Your task to perform on an android device: Open Google Chrome Image 0: 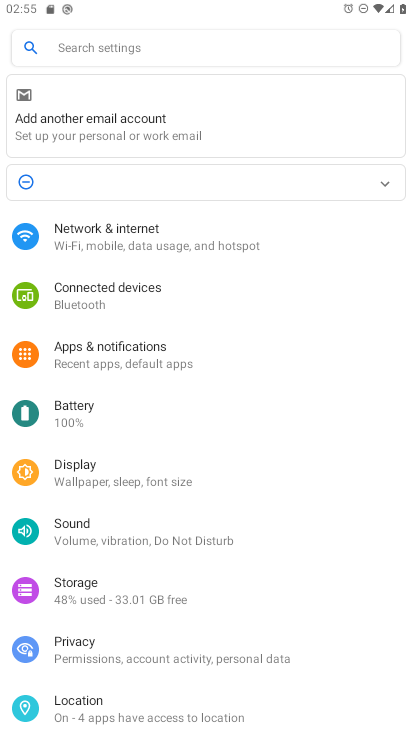
Step 0: press home button
Your task to perform on an android device: Open Google Chrome Image 1: 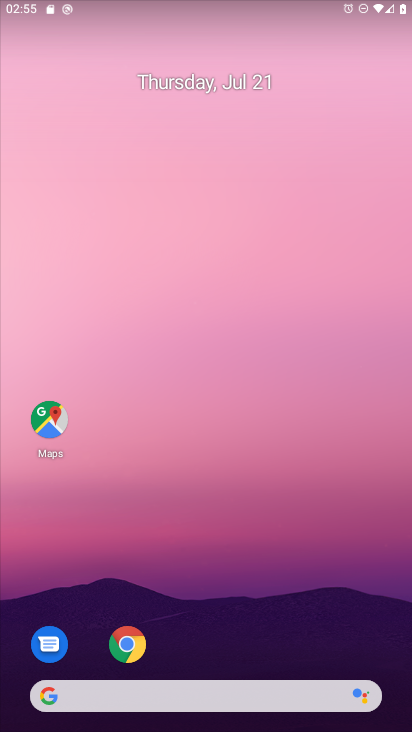
Step 1: click (123, 650)
Your task to perform on an android device: Open Google Chrome Image 2: 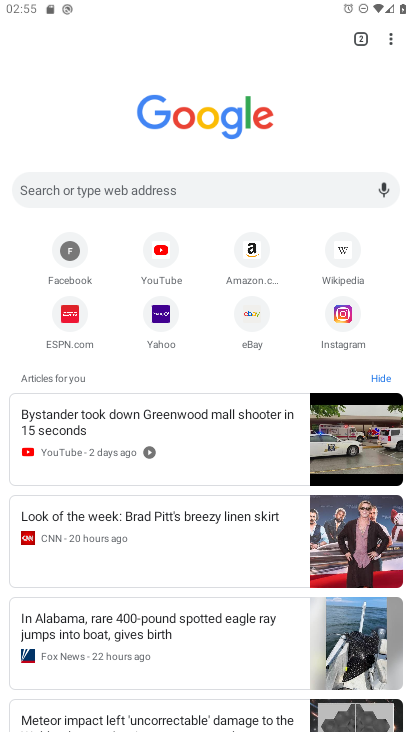
Step 2: task complete